Your task to perform on an android device: Search for a new grill on Home Depot Image 0: 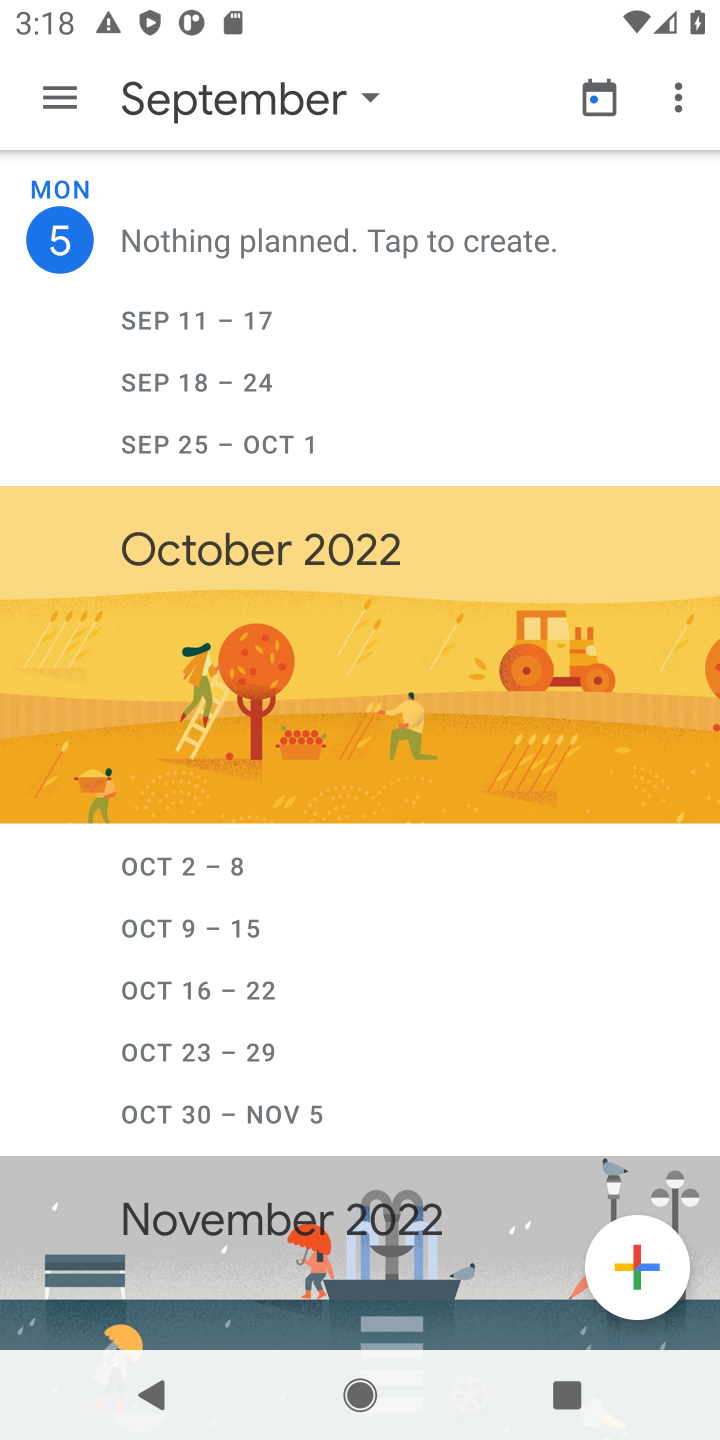
Step 0: press home button
Your task to perform on an android device: Search for a new grill on Home Depot Image 1: 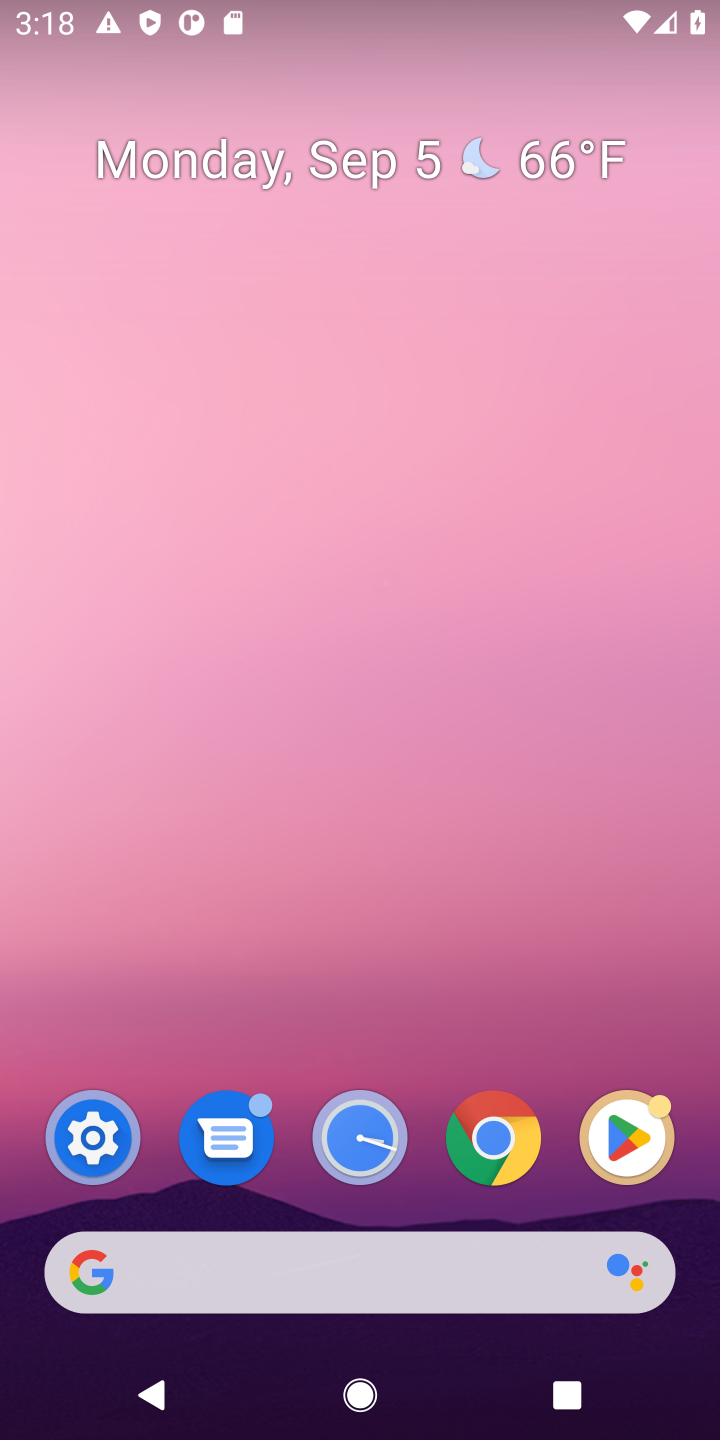
Step 1: click (478, 1170)
Your task to perform on an android device: Search for a new grill on Home Depot Image 2: 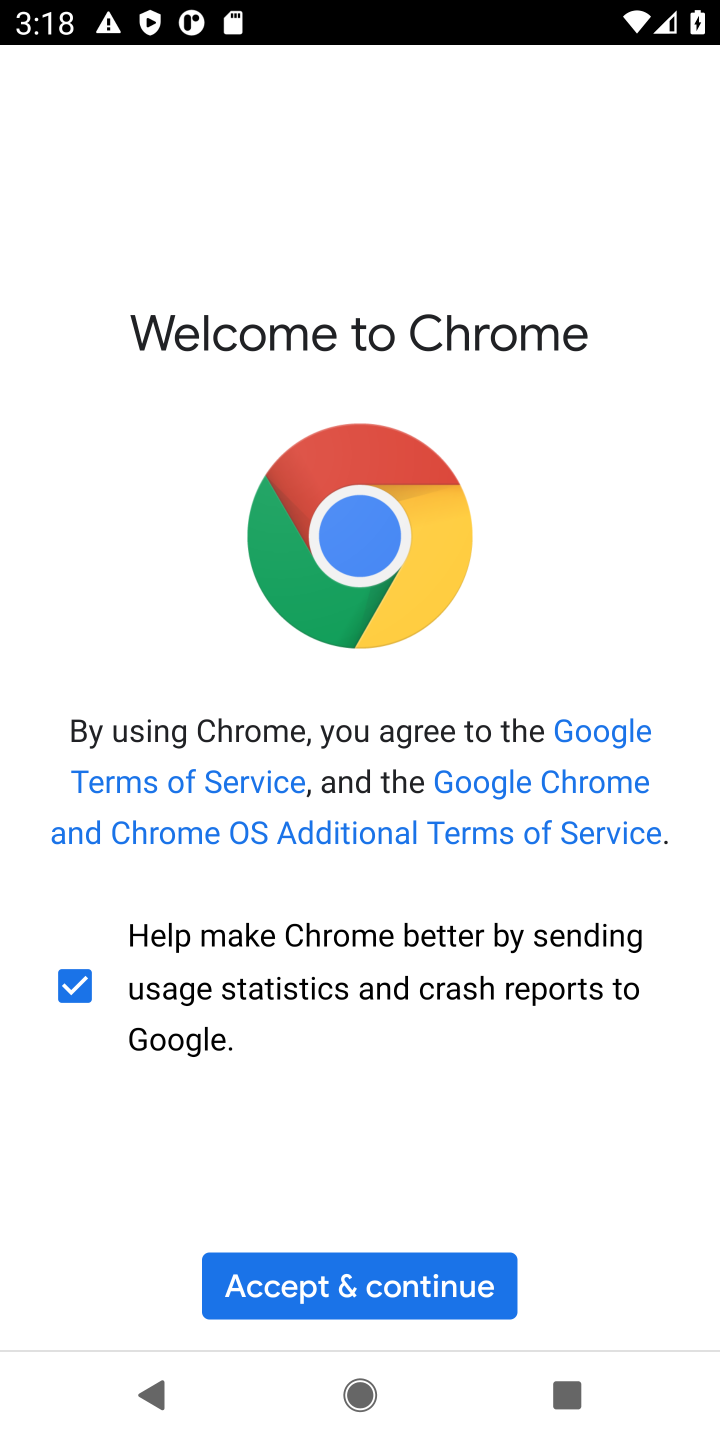
Step 2: click (392, 1285)
Your task to perform on an android device: Search for a new grill on Home Depot Image 3: 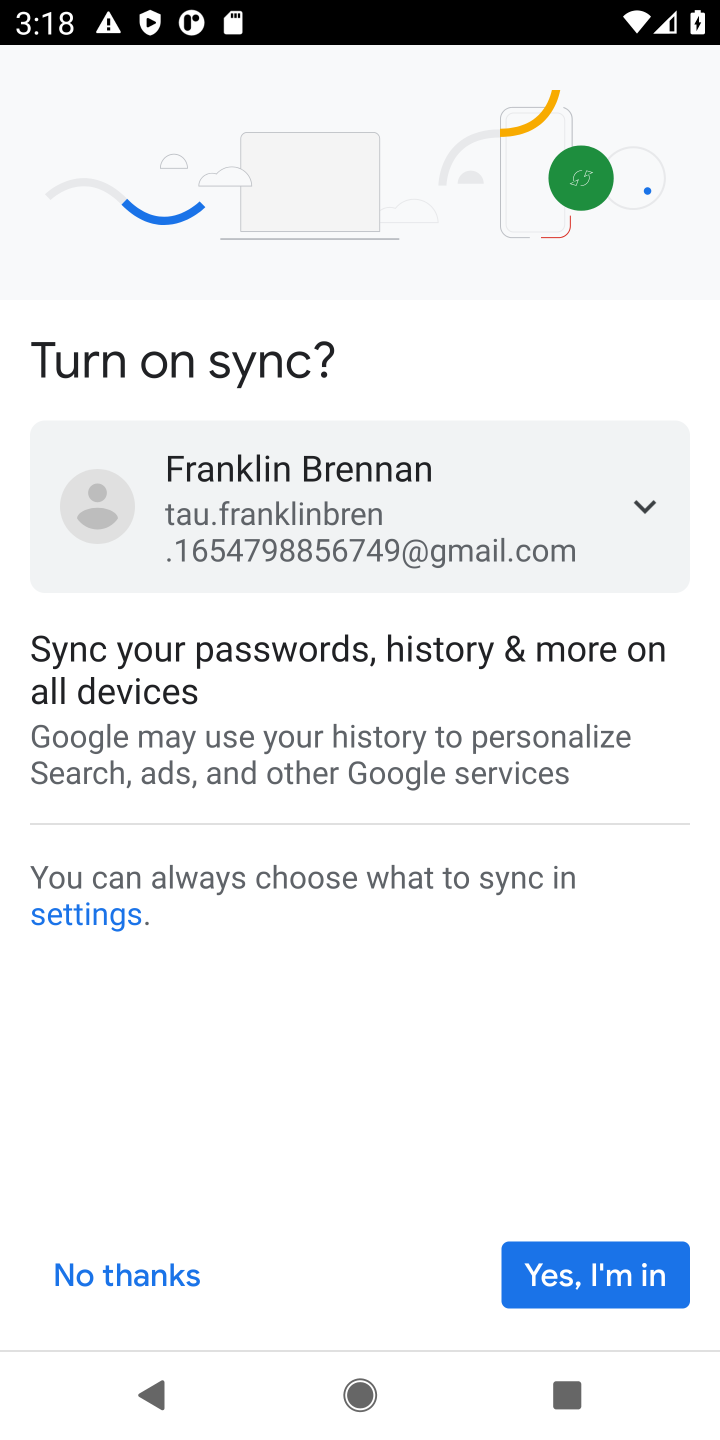
Step 3: click (523, 1279)
Your task to perform on an android device: Search for a new grill on Home Depot Image 4: 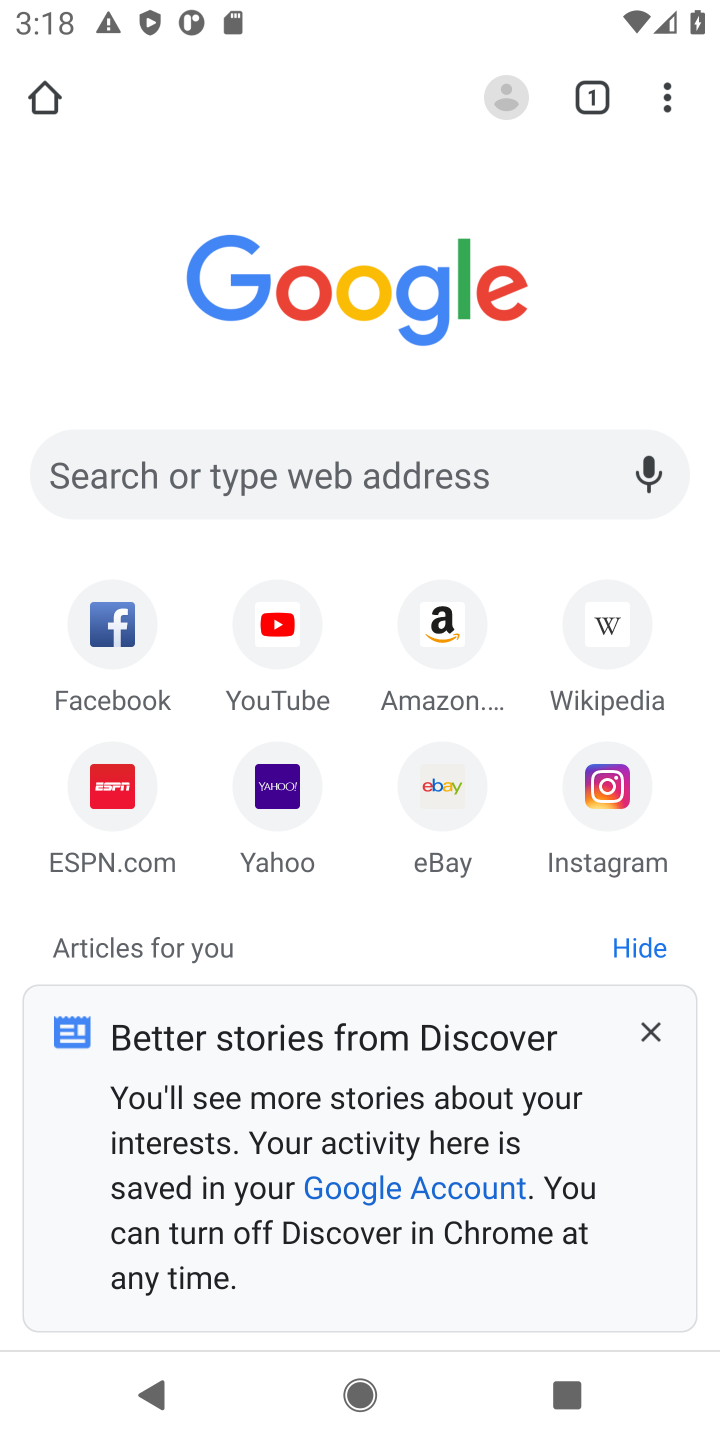
Step 4: click (231, 496)
Your task to perform on an android device: Search for a new grill on Home Depot Image 5: 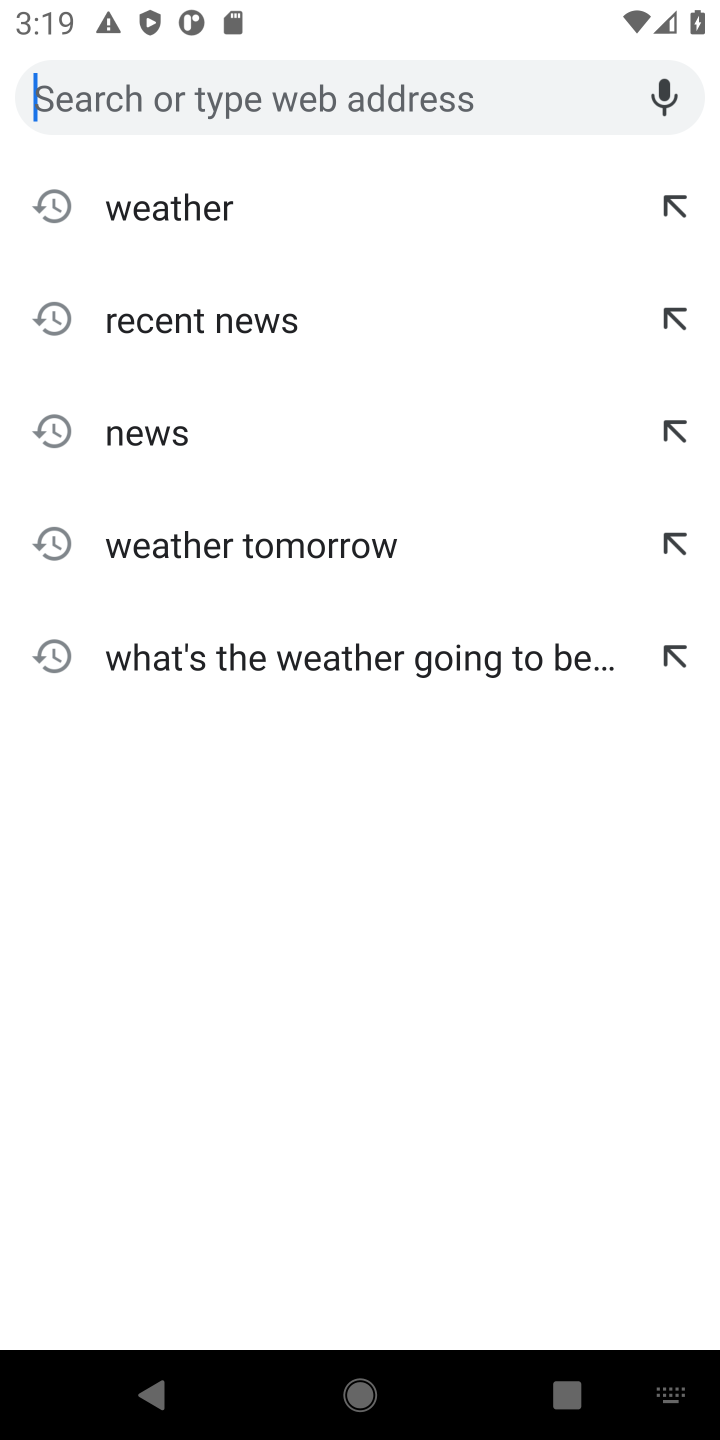
Step 5: type "homedepot"
Your task to perform on an android device: Search for a new grill on Home Depot Image 6: 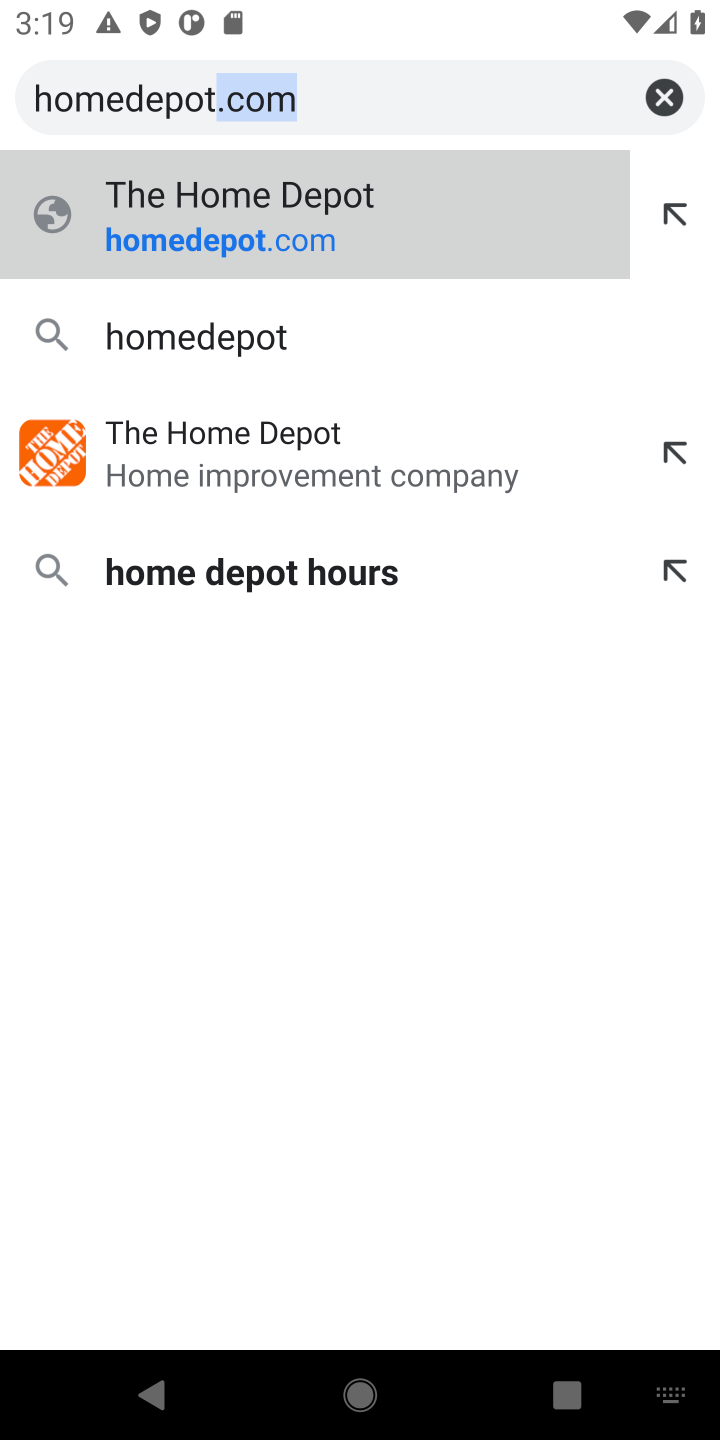
Step 6: click (438, 222)
Your task to perform on an android device: Search for a new grill on Home Depot Image 7: 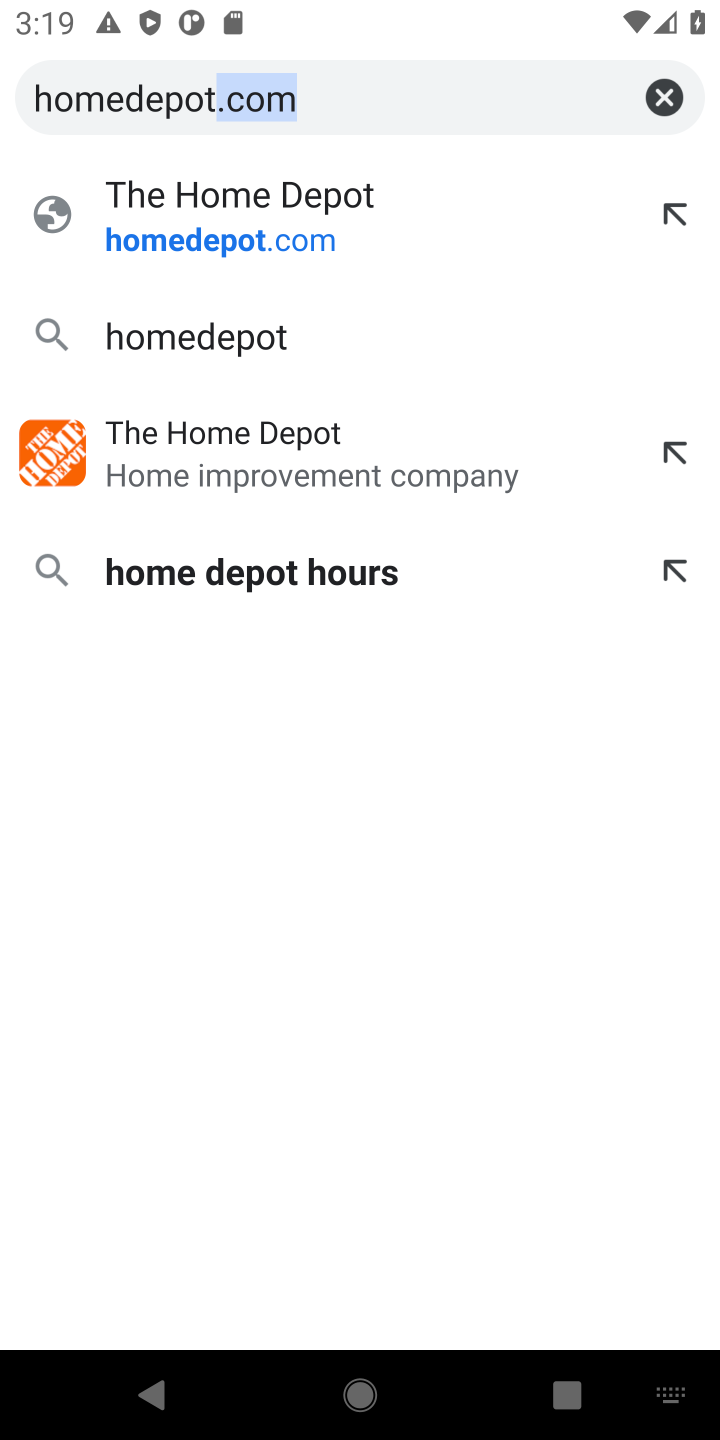
Step 7: click (209, 201)
Your task to perform on an android device: Search for a new grill on Home Depot Image 8: 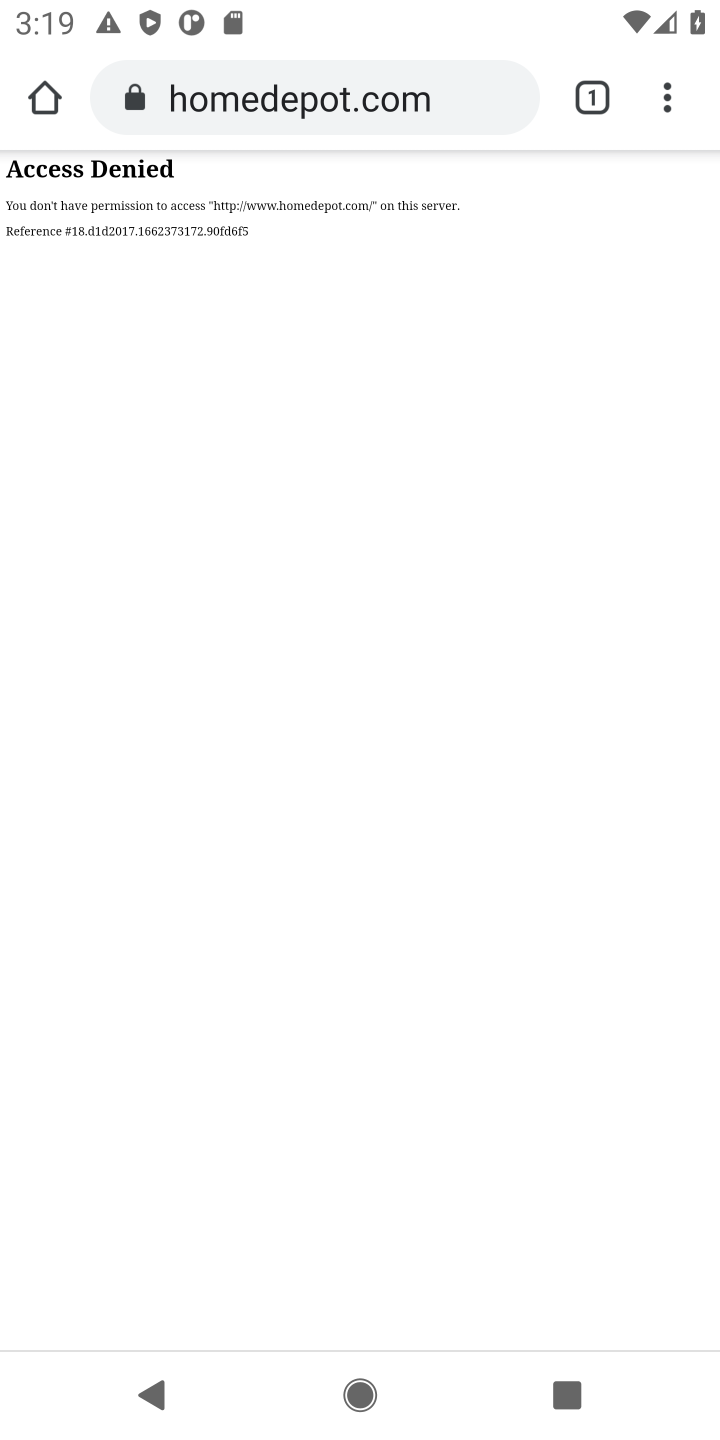
Step 8: task complete